Your task to perform on an android device: Open calendar and show me the fourth week of next month Image 0: 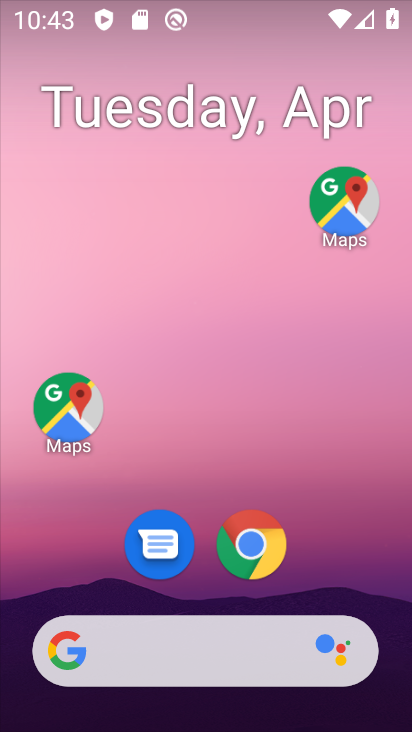
Step 0: drag from (41, 489) to (293, 488)
Your task to perform on an android device: Open calendar and show me the fourth week of next month Image 1: 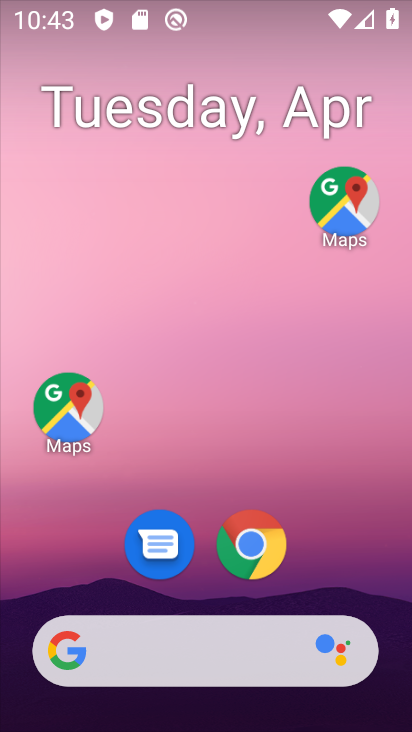
Step 1: press home button
Your task to perform on an android device: Open calendar and show me the fourth week of next month Image 2: 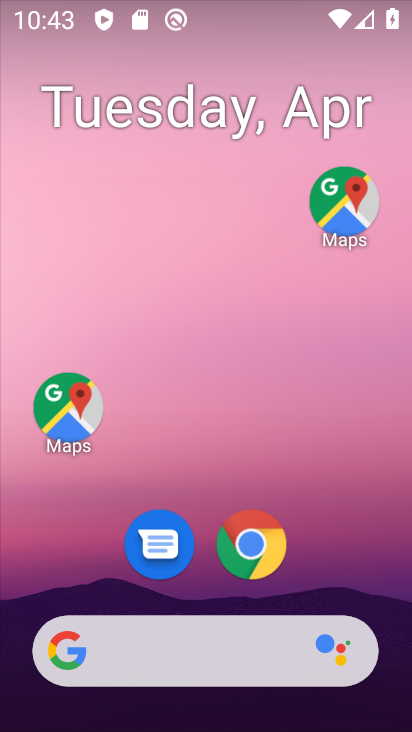
Step 2: drag from (310, 555) to (313, 180)
Your task to perform on an android device: Open calendar and show me the fourth week of next month Image 3: 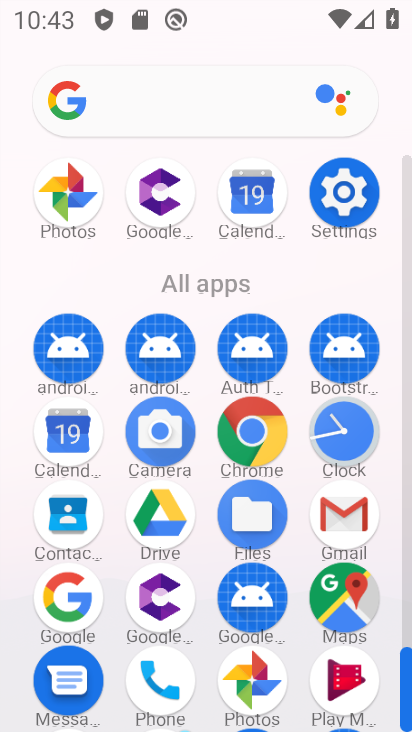
Step 3: click (62, 451)
Your task to perform on an android device: Open calendar and show me the fourth week of next month Image 4: 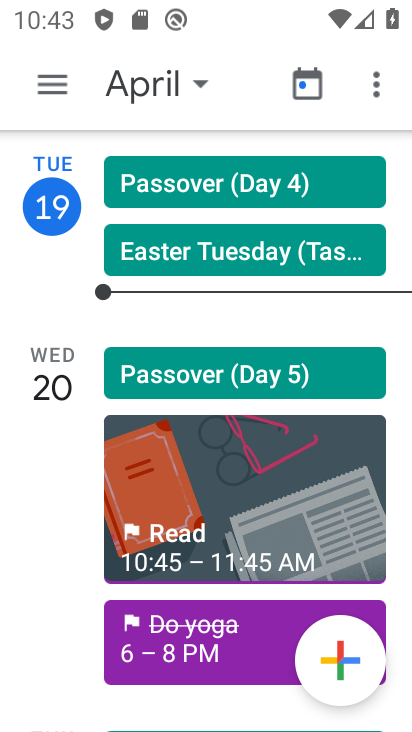
Step 4: click (184, 85)
Your task to perform on an android device: Open calendar and show me the fourth week of next month Image 5: 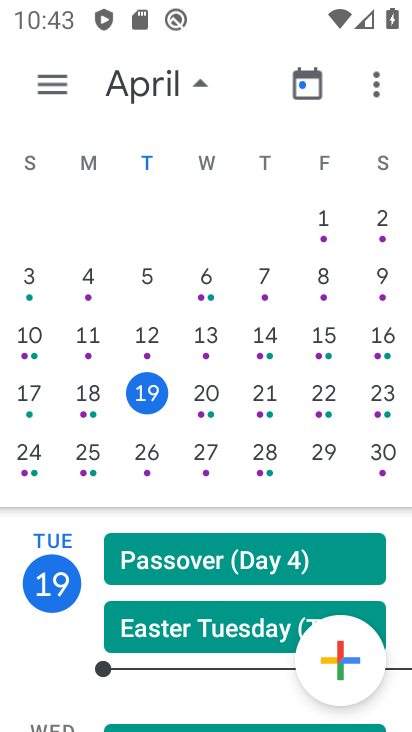
Step 5: drag from (365, 425) to (31, 388)
Your task to perform on an android device: Open calendar and show me the fourth week of next month Image 6: 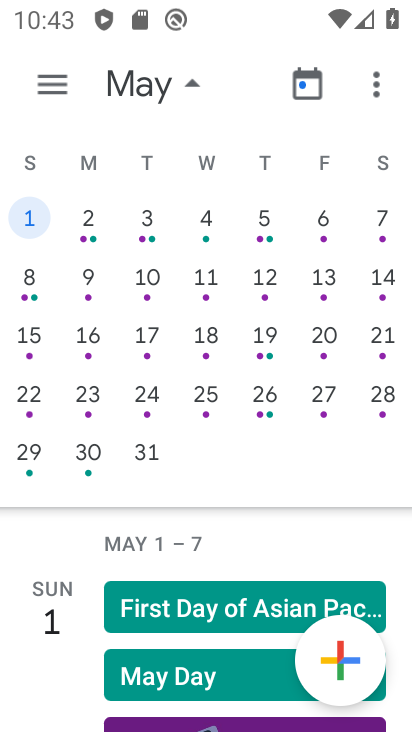
Step 6: click (36, 405)
Your task to perform on an android device: Open calendar and show me the fourth week of next month Image 7: 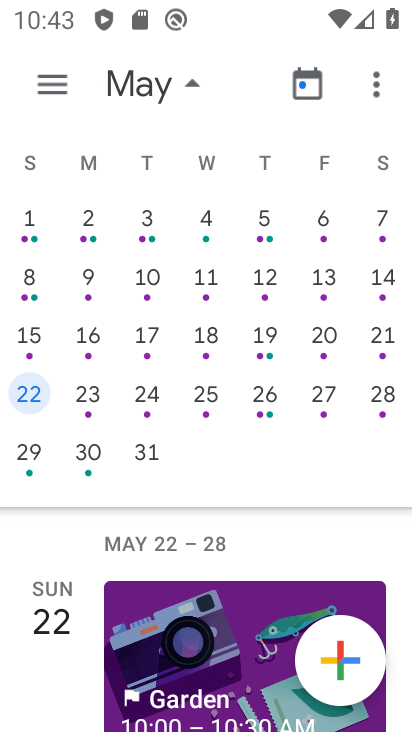
Step 7: click (94, 414)
Your task to perform on an android device: Open calendar and show me the fourth week of next month Image 8: 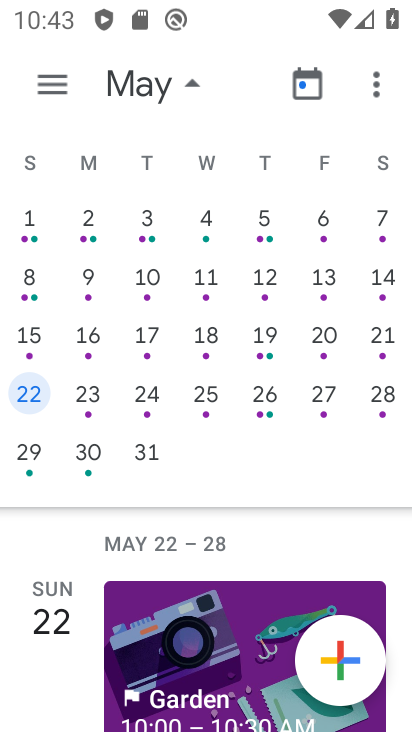
Step 8: click (147, 417)
Your task to perform on an android device: Open calendar and show me the fourth week of next month Image 9: 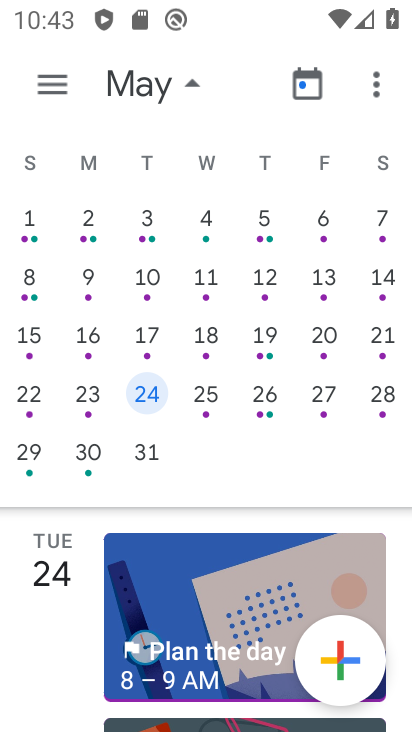
Step 9: click (206, 418)
Your task to perform on an android device: Open calendar and show me the fourth week of next month Image 10: 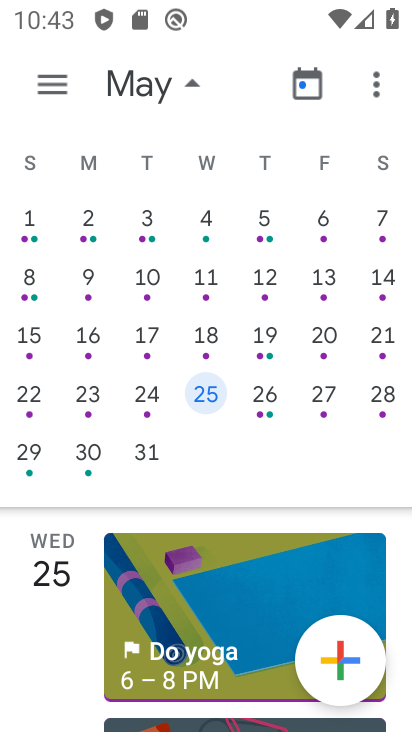
Step 10: drag from (263, 414) to (322, 417)
Your task to perform on an android device: Open calendar and show me the fourth week of next month Image 11: 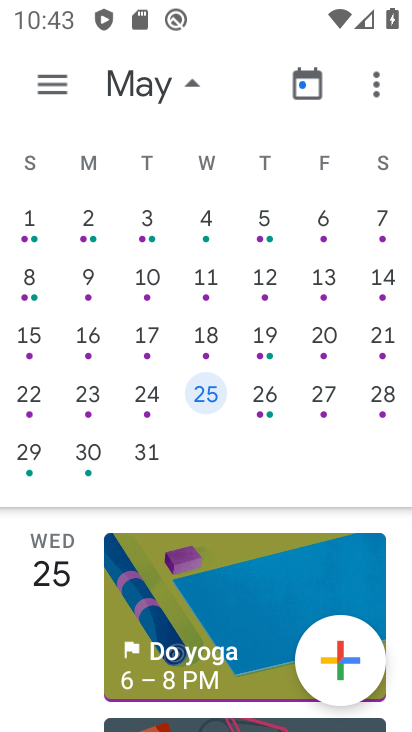
Step 11: click (261, 409)
Your task to perform on an android device: Open calendar and show me the fourth week of next month Image 12: 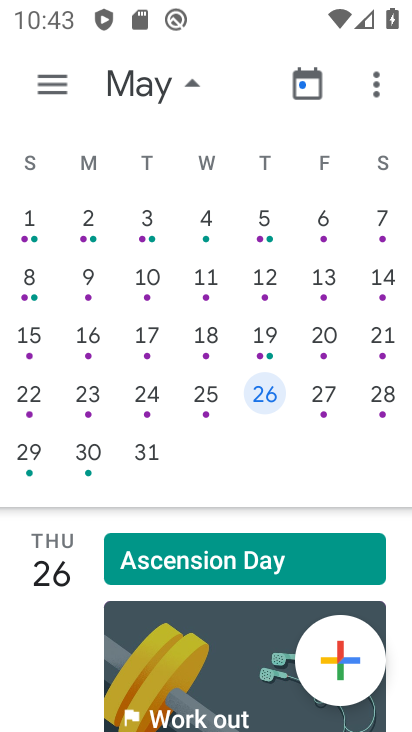
Step 12: click (318, 412)
Your task to perform on an android device: Open calendar and show me the fourth week of next month Image 13: 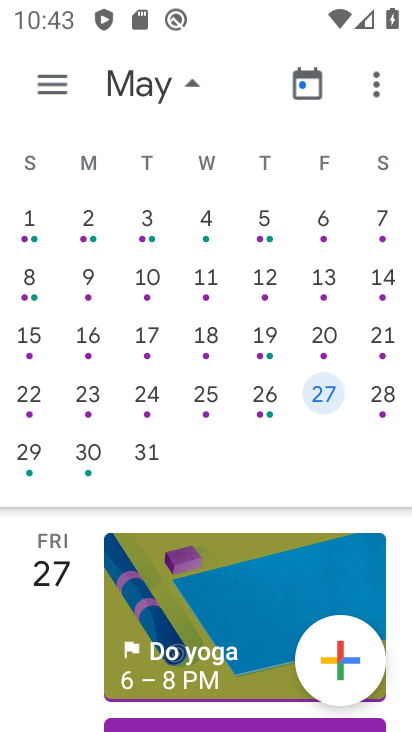
Step 13: click (377, 410)
Your task to perform on an android device: Open calendar and show me the fourth week of next month Image 14: 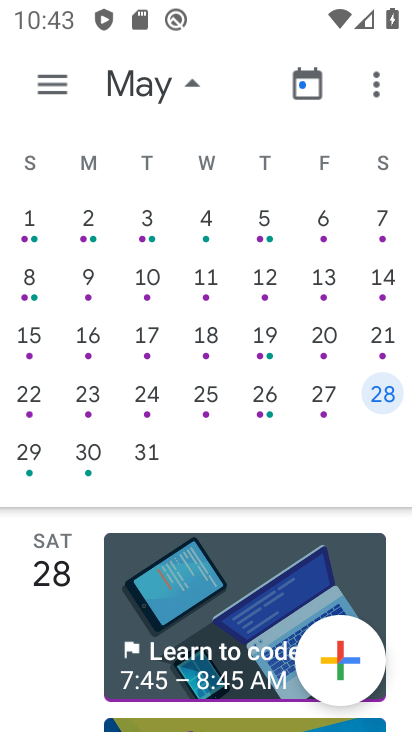
Step 14: task complete